Your task to perform on an android device: Show the shopping cart on target. Add "dell xps" to the cart on target Image 0: 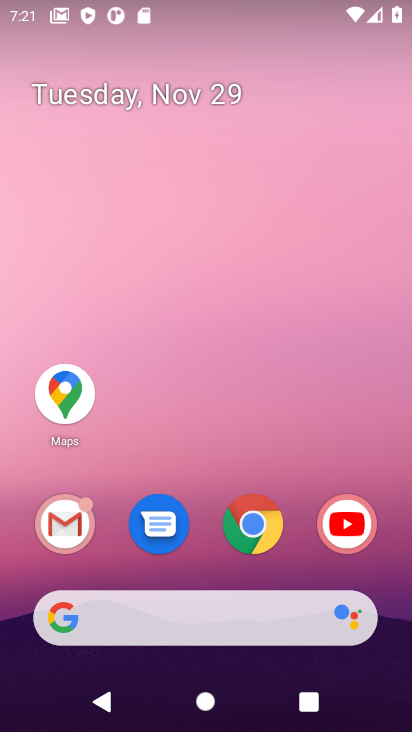
Step 0: click (259, 529)
Your task to perform on an android device: Show the shopping cart on target. Add "dell xps" to the cart on target Image 1: 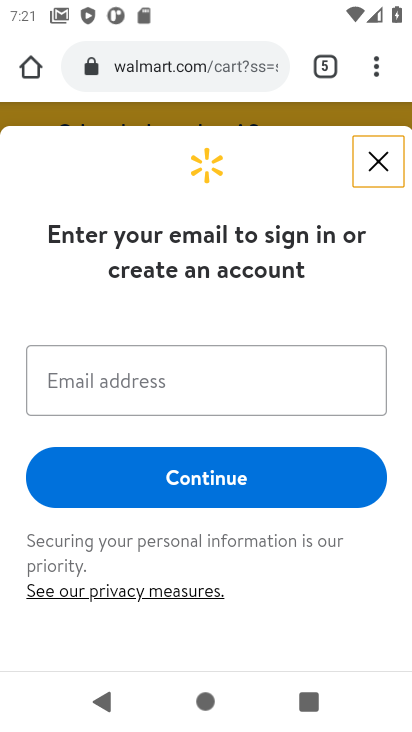
Step 1: click (180, 66)
Your task to perform on an android device: Show the shopping cart on target. Add "dell xps" to the cart on target Image 2: 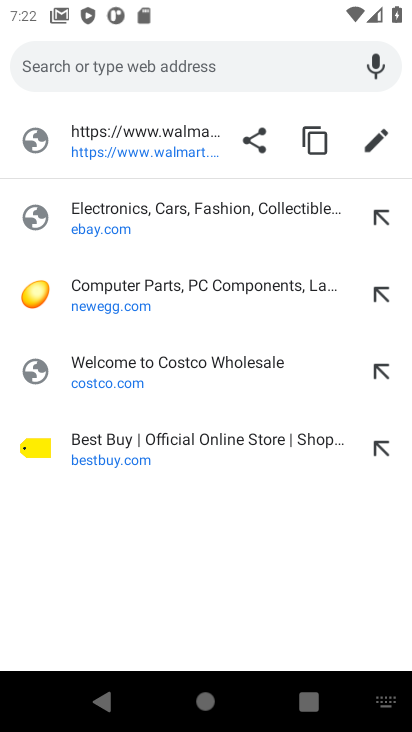
Step 2: type "target.com"
Your task to perform on an android device: Show the shopping cart on target. Add "dell xps" to the cart on target Image 3: 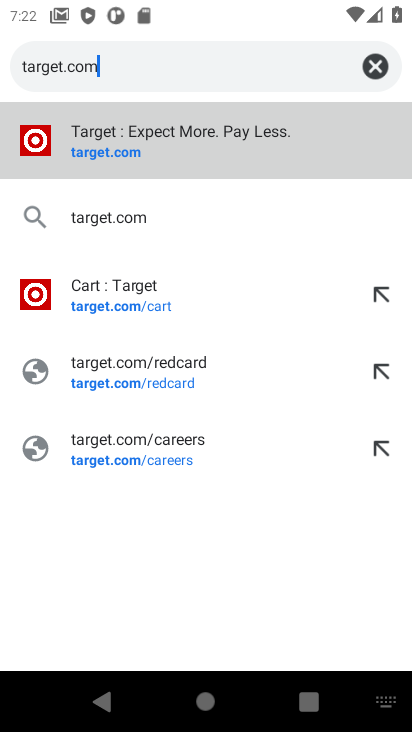
Step 3: click (99, 150)
Your task to perform on an android device: Show the shopping cart on target. Add "dell xps" to the cart on target Image 4: 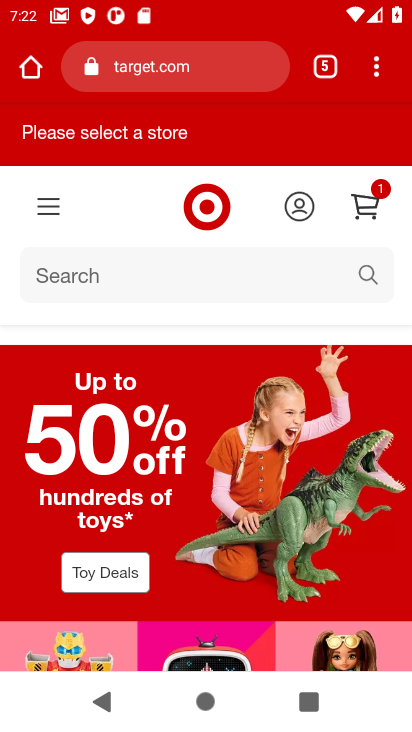
Step 4: click (365, 205)
Your task to perform on an android device: Show the shopping cart on target. Add "dell xps" to the cart on target Image 5: 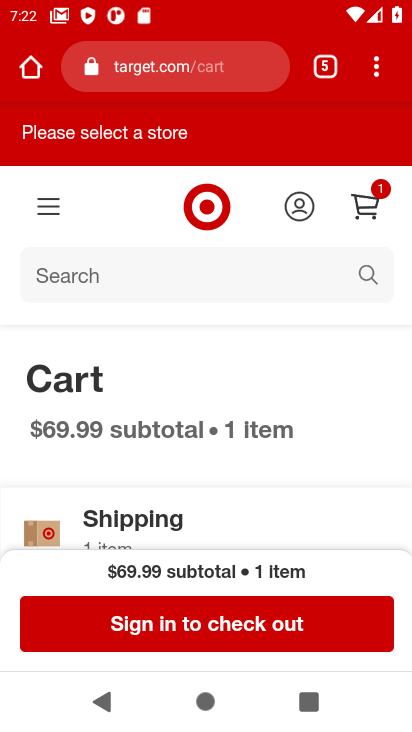
Step 5: click (50, 275)
Your task to perform on an android device: Show the shopping cart on target. Add "dell xps" to the cart on target Image 6: 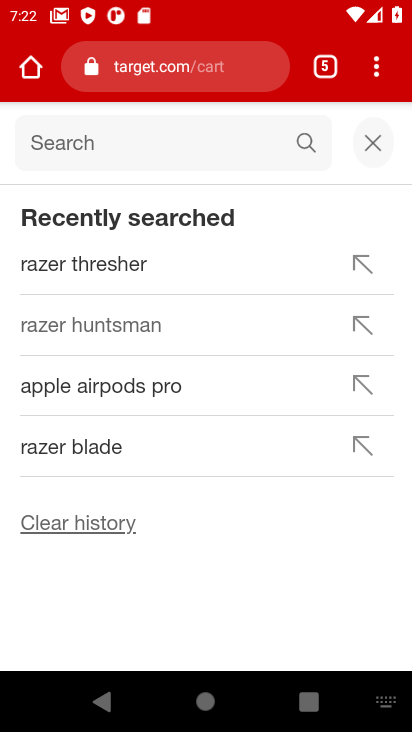
Step 6: type "dell xps"
Your task to perform on an android device: Show the shopping cart on target. Add "dell xps" to the cart on target Image 7: 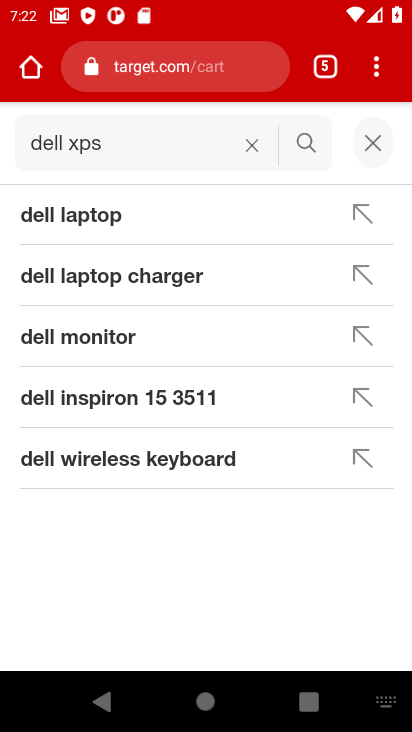
Step 7: click (299, 146)
Your task to perform on an android device: Show the shopping cart on target. Add "dell xps" to the cart on target Image 8: 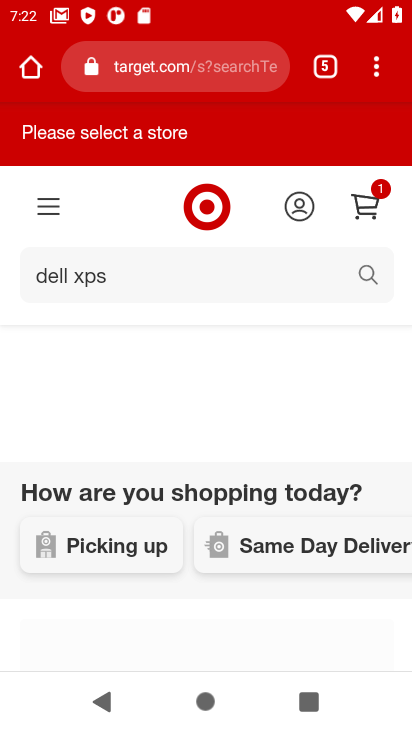
Step 8: task complete